Your task to perform on an android device: Open Chrome and go to settings Image 0: 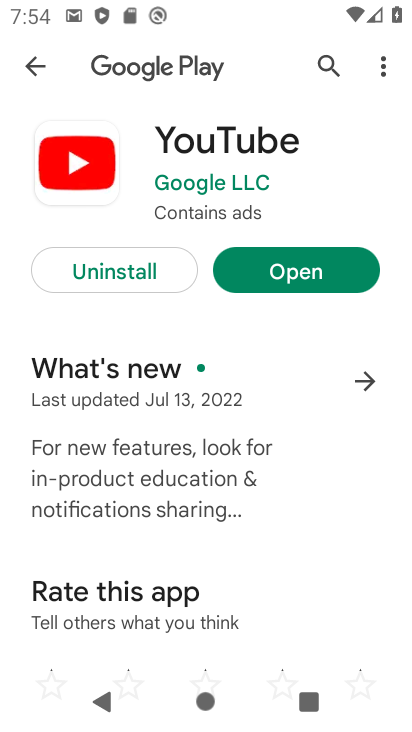
Step 0: press home button
Your task to perform on an android device: Open Chrome and go to settings Image 1: 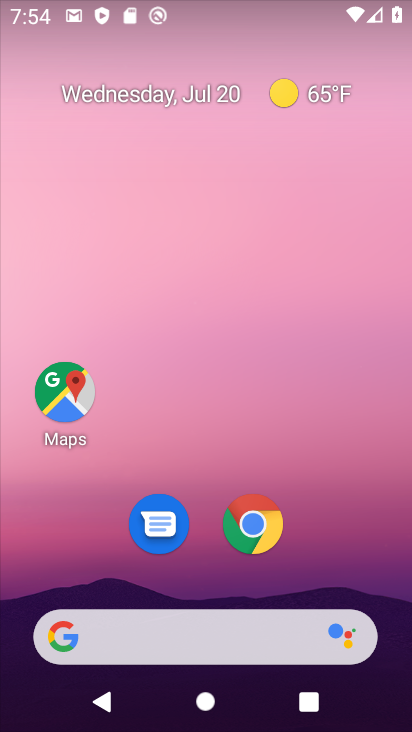
Step 1: click (262, 513)
Your task to perform on an android device: Open Chrome and go to settings Image 2: 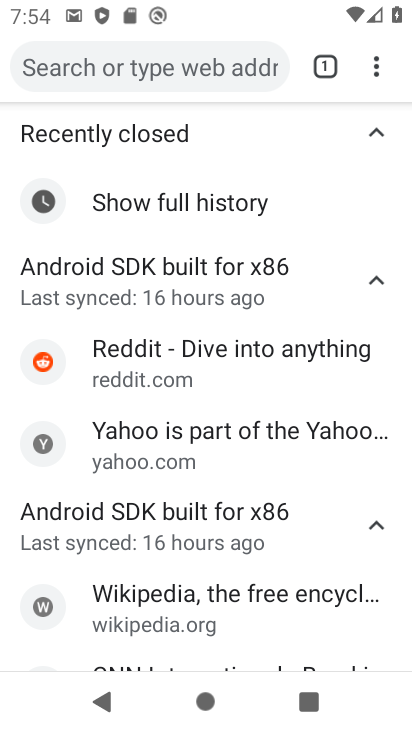
Step 2: click (381, 61)
Your task to perform on an android device: Open Chrome and go to settings Image 3: 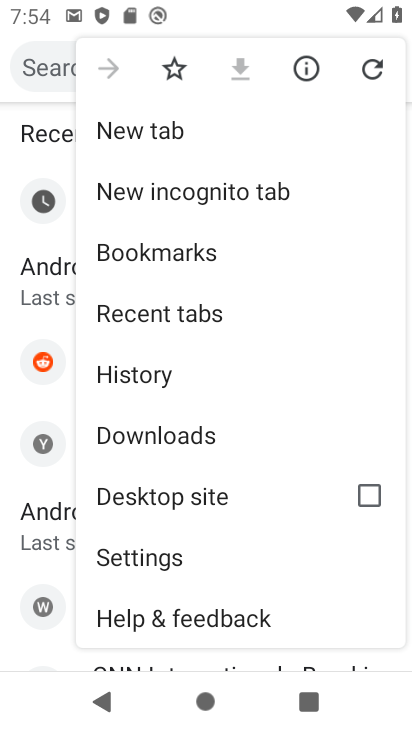
Step 3: click (163, 553)
Your task to perform on an android device: Open Chrome and go to settings Image 4: 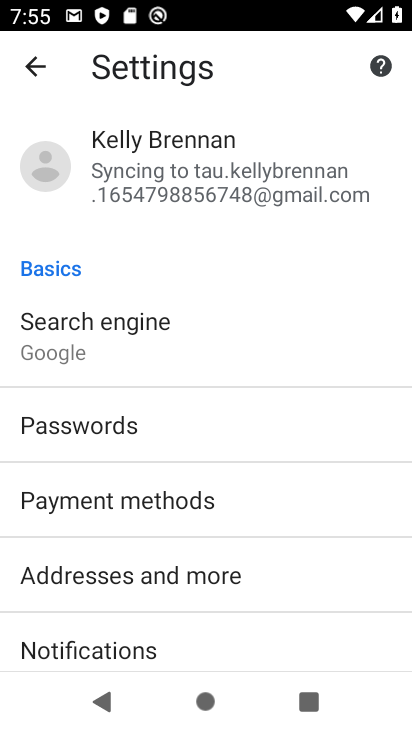
Step 4: task complete